Your task to perform on an android device: turn off location history Image 0: 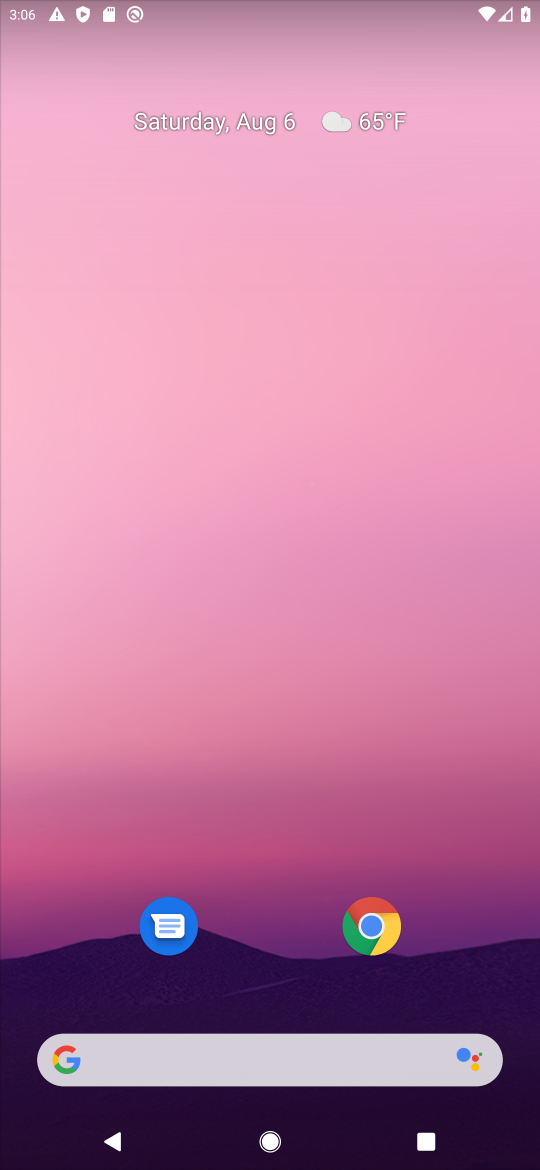
Step 0: drag from (278, 879) to (331, 168)
Your task to perform on an android device: turn off location history Image 1: 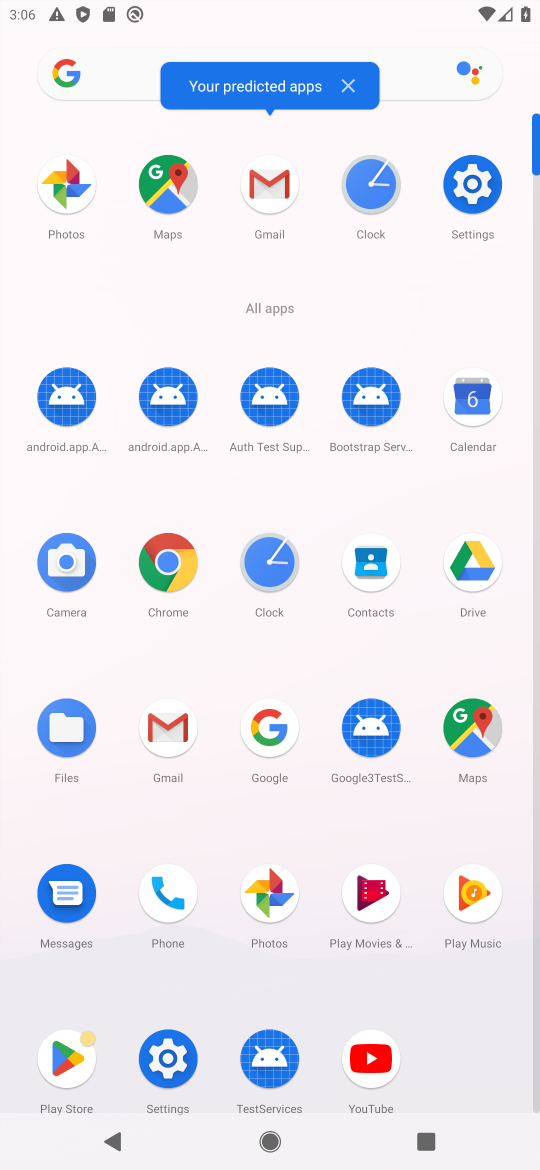
Step 1: click (484, 196)
Your task to perform on an android device: turn off location history Image 2: 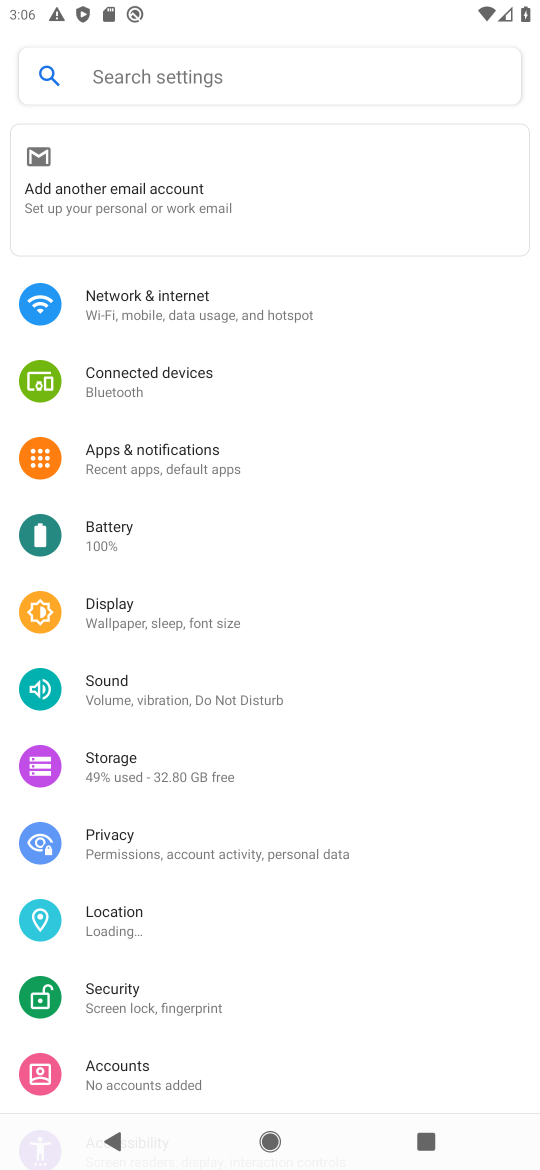
Step 2: click (188, 916)
Your task to perform on an android device: turn off location history Image 3: 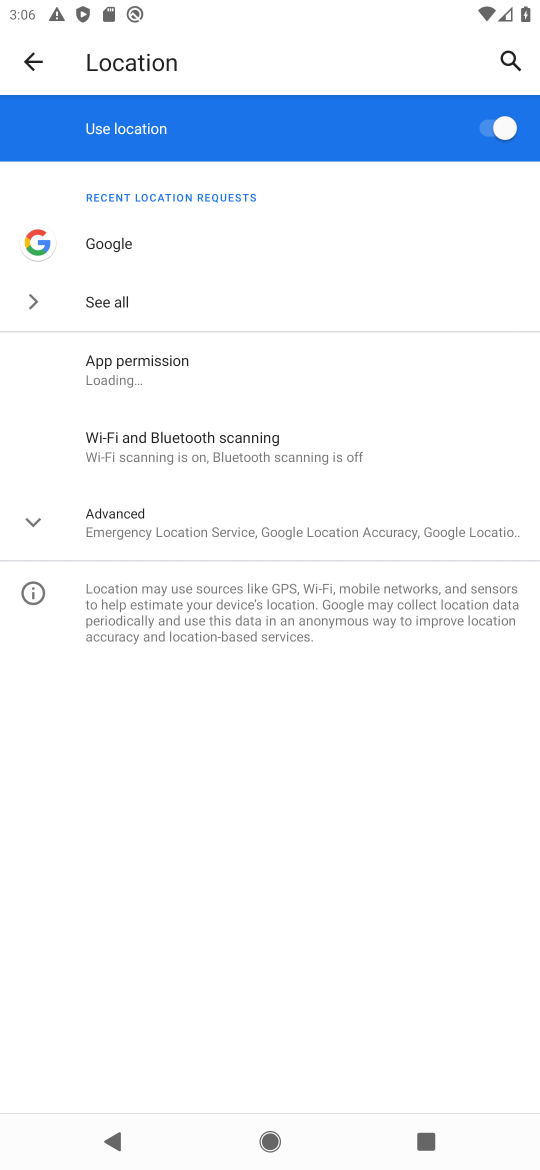
Step 3: click (138, 540)
Your task to perform on an android device: turn off location history Image 4: 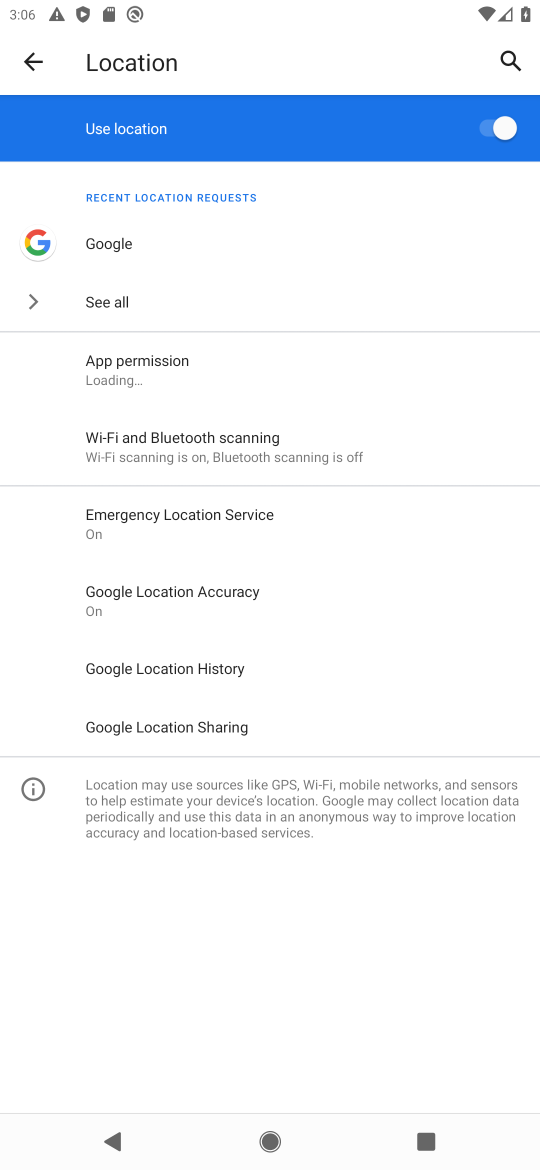
Step 4: click (212, 677)
Your task to perform on an android device: turn off location history Image 5: 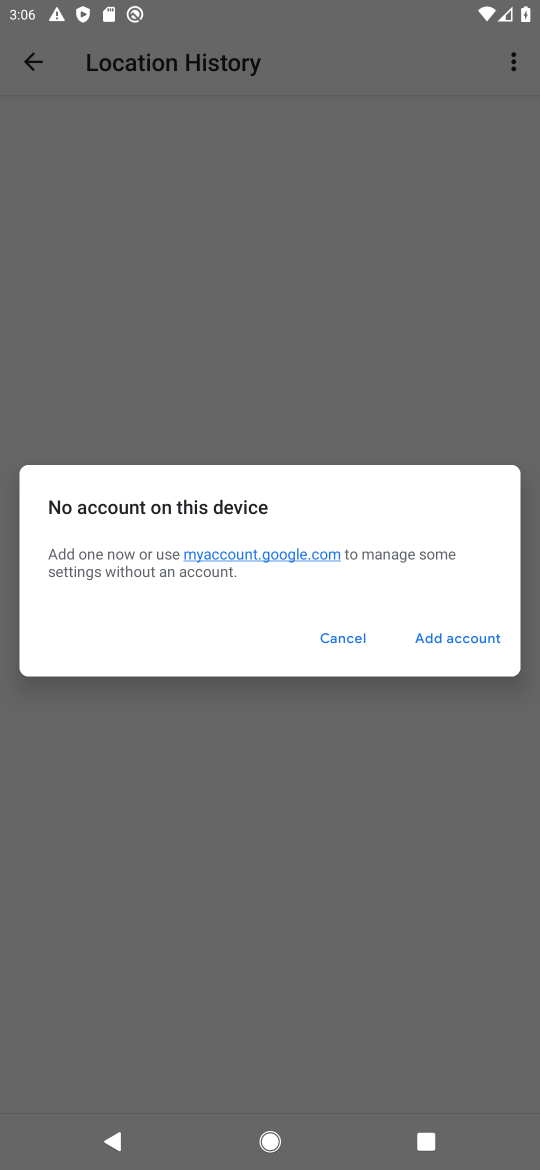
Step 5: click (334, 642)
Your task to perform on an android device: turn off location history Image 6: 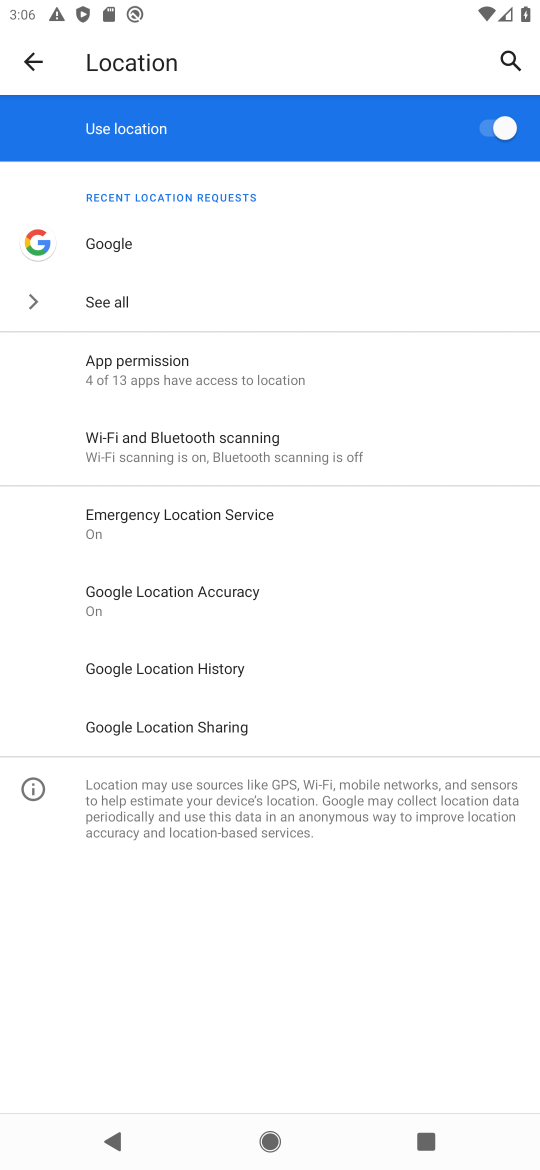
Step 6: click (270, 673)
Your task to perform on an android device: turn off location history Image 7: 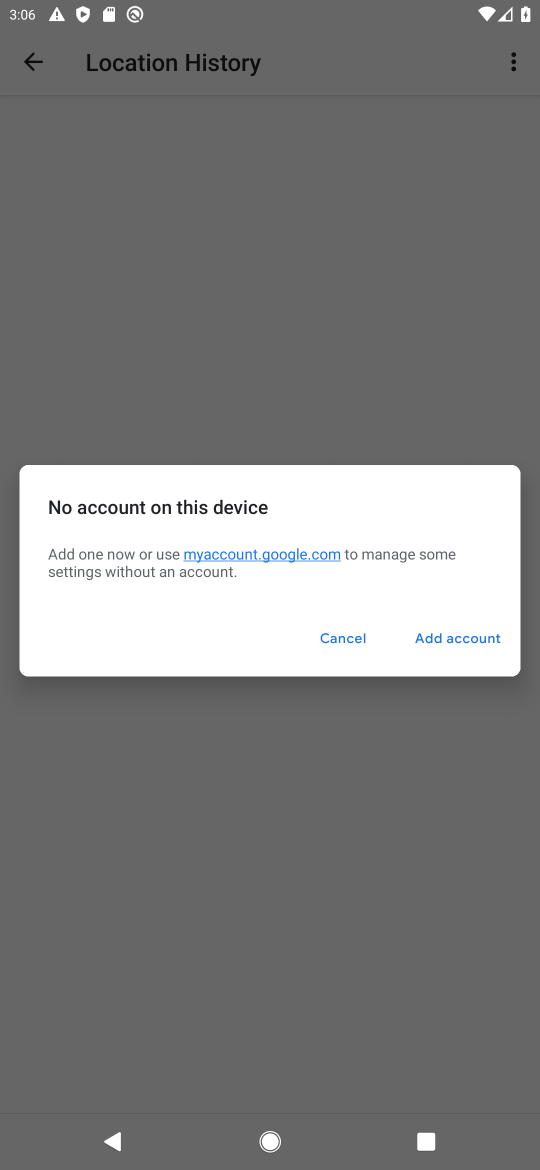
Step 7: task complete